Your task to perform on an android device: Play the last video I watched on Youtube Image 0: 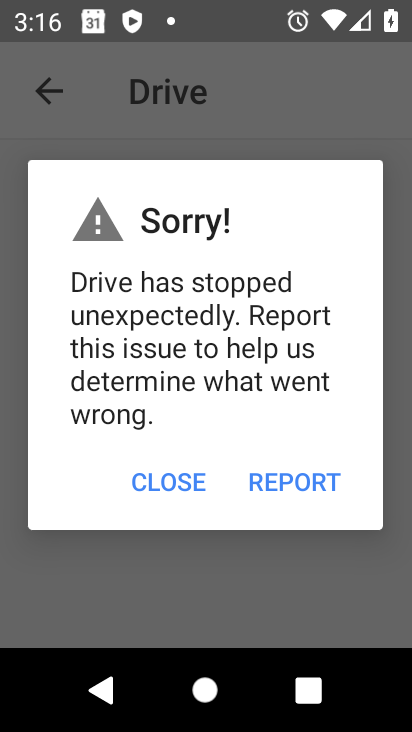
Step 0: press home button
Your task to perform on an android device: Play the last video I watched on Youtube Image 1: 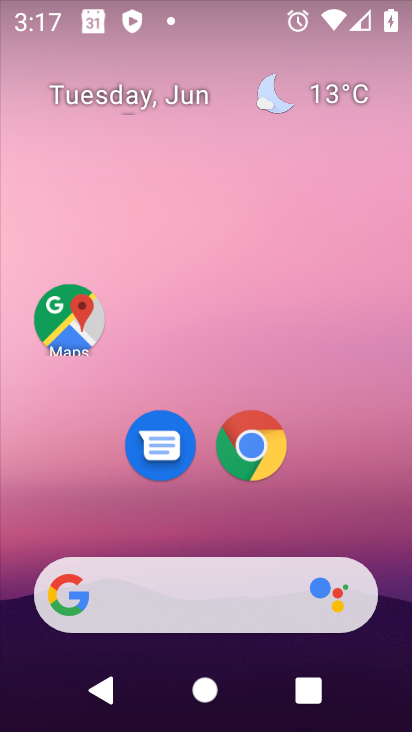
Step 1: drag from (395, 616) to (338, 160)
Your task to perform on an android device: Play the last video I watched on Youtube Image 2: 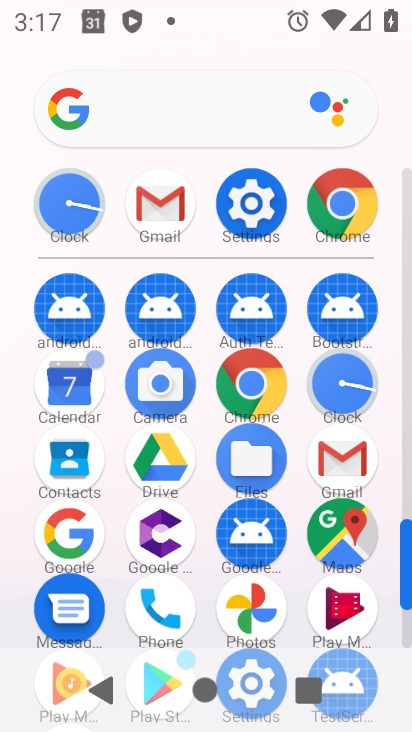
Step 2: click (406, 633)
Your task to perform on an android device: Play the last video I watched on Youtube Image 3: 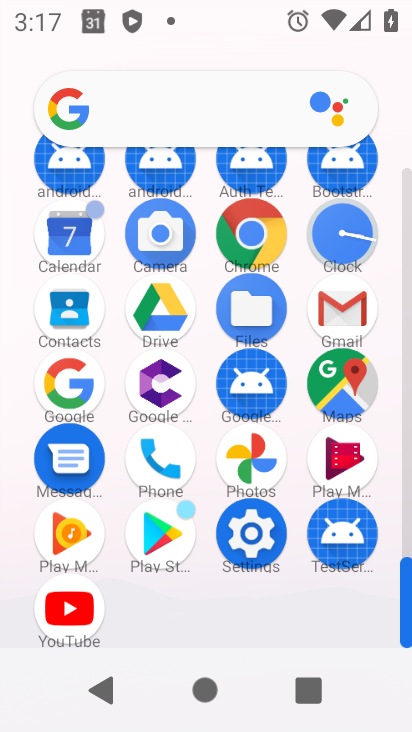
Step 3: click (68, 609)
Your task to perform on an android device: Play the last video I watched on Youtube Image 4: 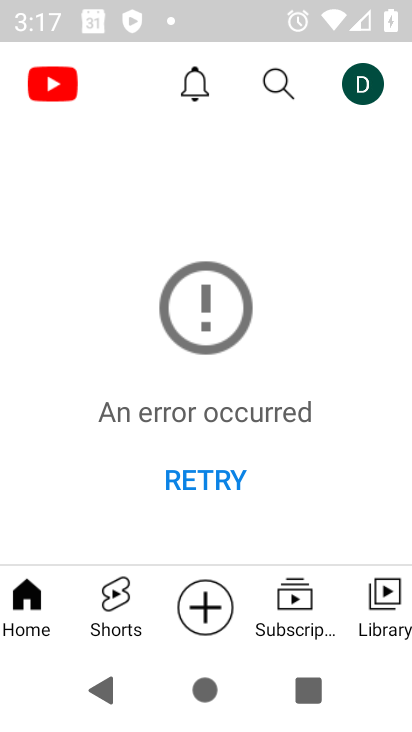
Step 4: click (385, 598)
Your task to perform on an android device: Play the last video I watched on Youtube Image 5: 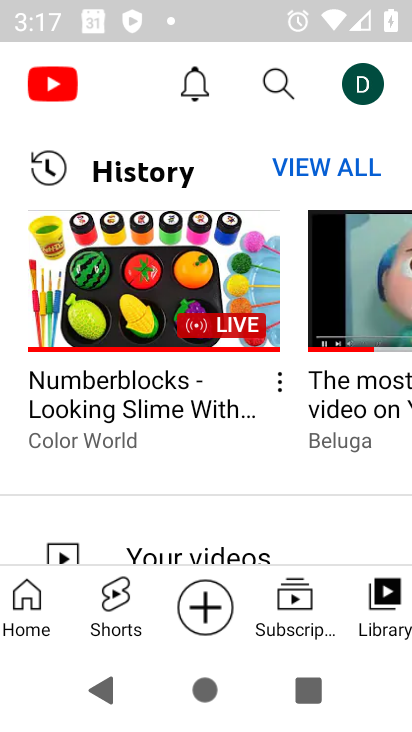
Step 5: click (131, 291)
Your task to perform on an android device: Play the last video I watched on Youtube Image 6: 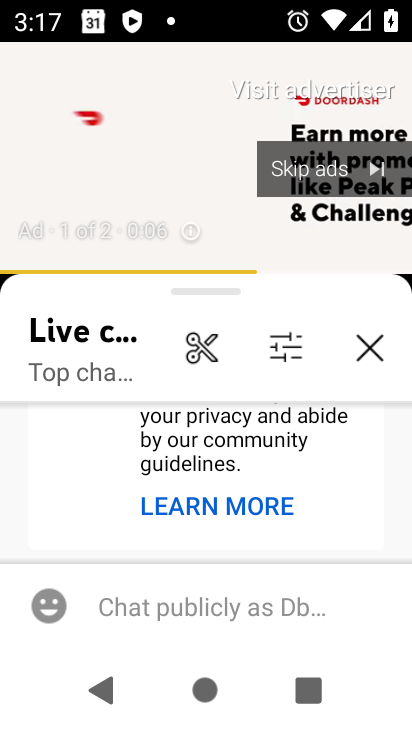
Step 6: click (329, 176)
Your task to perform on an android device: Play the last video I watched on Youtube Image 7: 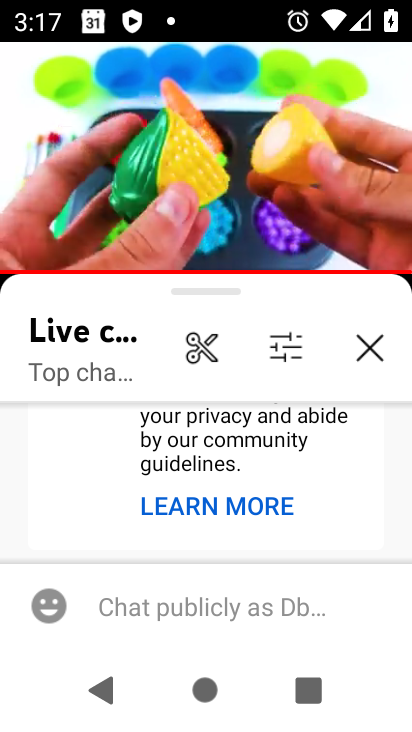
Step 7: click (210, 156)
Your task to perform on an android device: Play the last video I watched on Youtube Image 8: 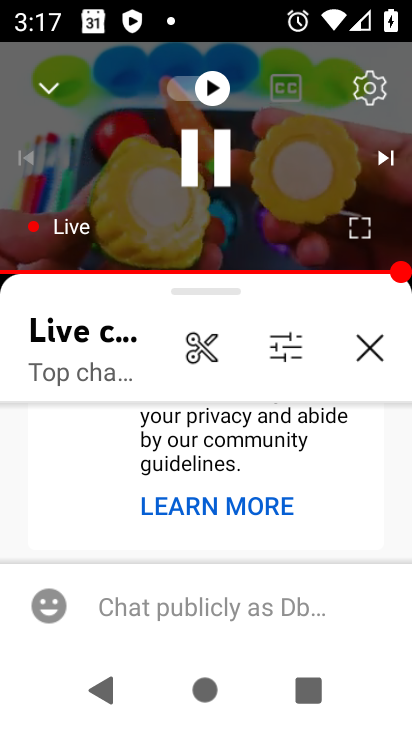
Step 8: click (215, 155)
Your task to perform on an android device: Play the last video I watched on Youtube Image 9: 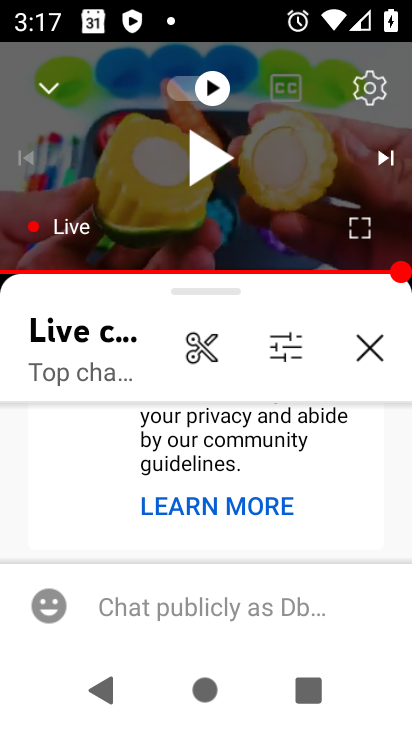
Step 9: task complete